Your task to perform on an android device: turn on data saver in the chrome app Image 0: 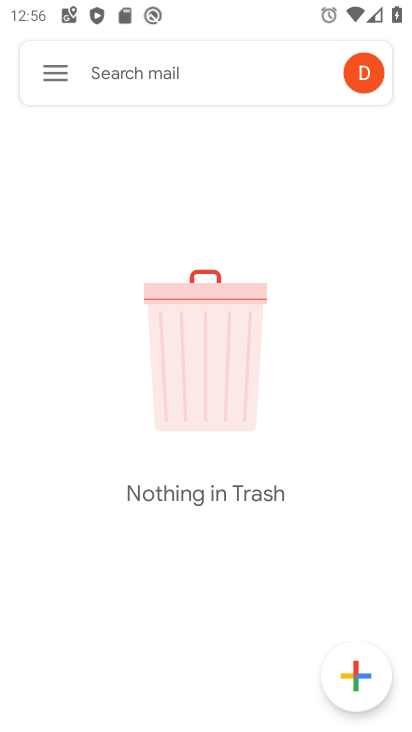
Step 0: press home button
Your task to perform on an android device: turn on data saver in the chrome app Image 1: 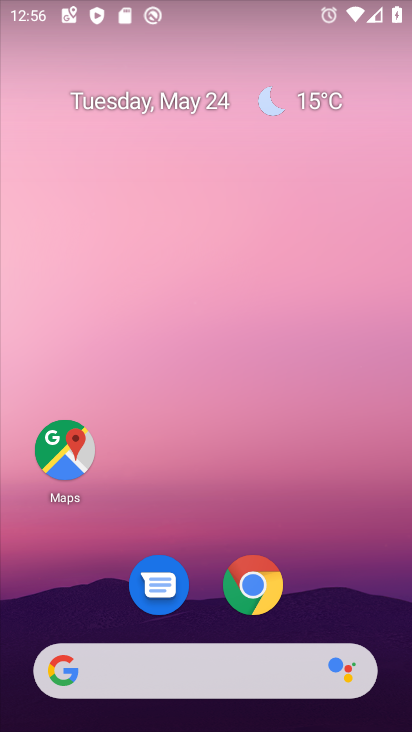
Step 1: click (266, 583)
Your task to perform on an android device: turn on data saver in the chrome app Image 2: 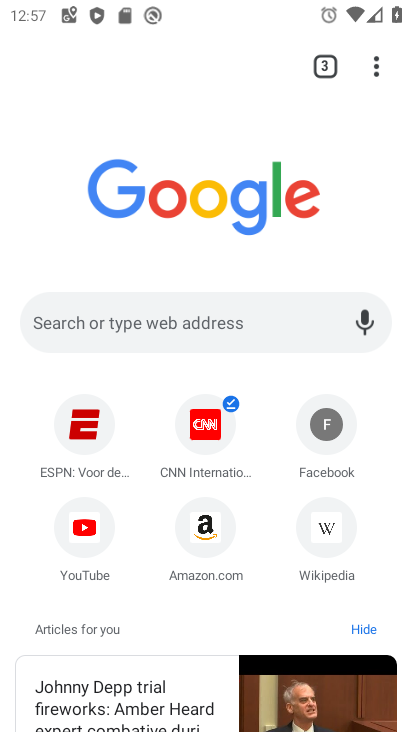
Step 2: click (370, 62)
Your task to perform on an android device: turn on data saver in the chrome app Image 3: 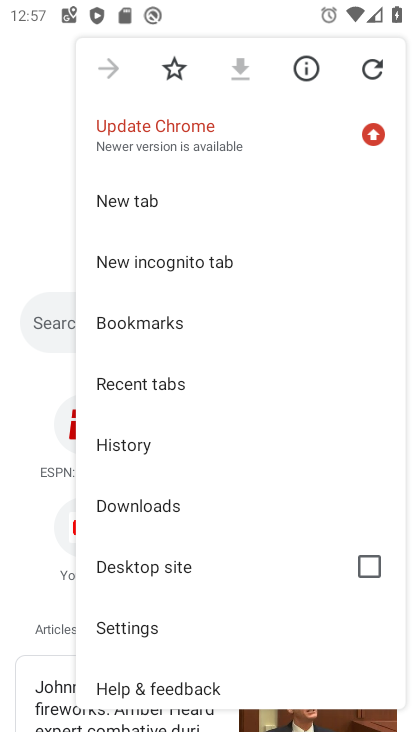
Step 3: click (194, 627)
Your task to perform on an android device: turn on data saver in the chrome app Image 4: 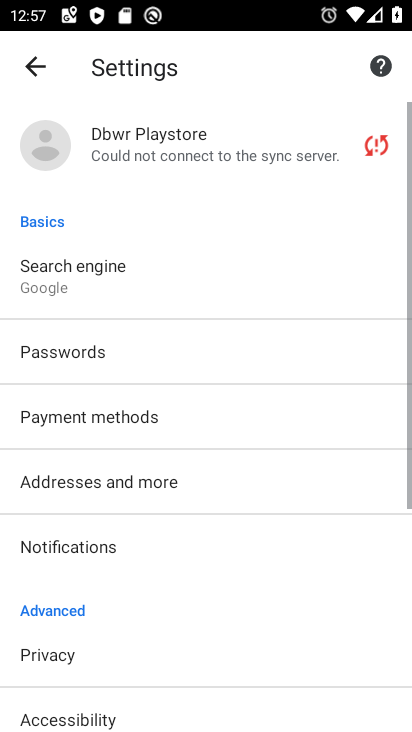
Step 4: drag from (214, 575) to (254, 136)
Your task to perform on an android device: turn on data saver in the chrome app Image 5: 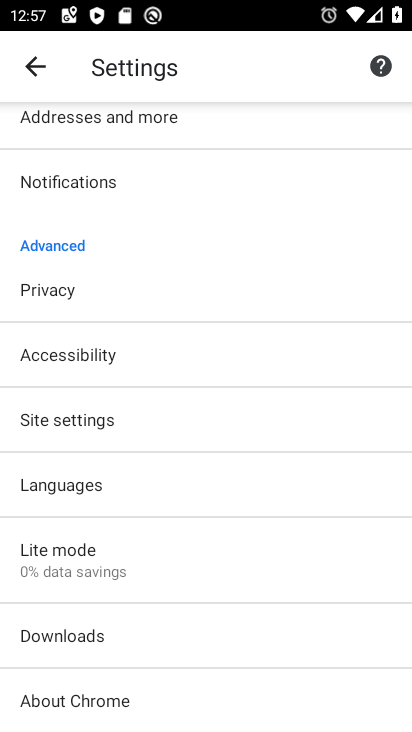
Step 5: click (160, 566)
Your task to perform on an android device: turn on data saver in the chrome app Image 6: 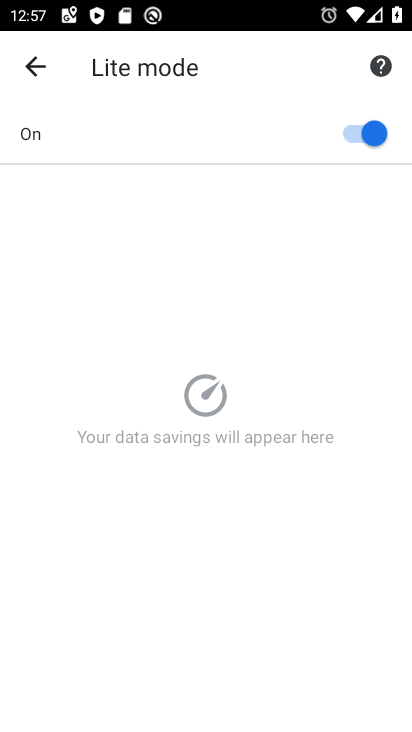
Step 6: task complete